Your task to perform on an android device: toggle notifications settings in the gmail app Image 0: 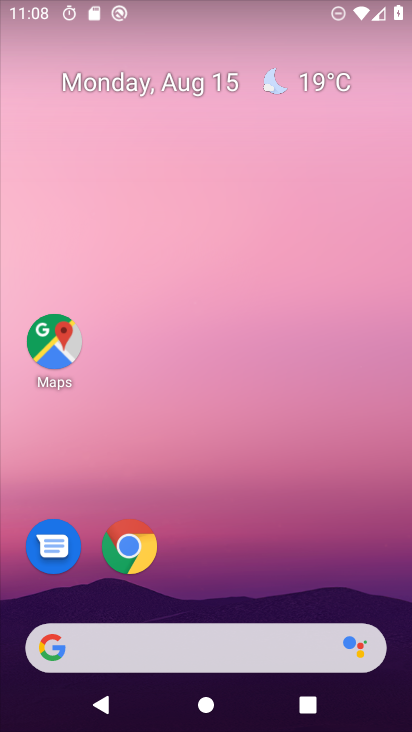
Step 0: drag from (223, 608) to (188, 146)
Your task to perform on an android device: toggle notifications settings in the gmail app Image 1: 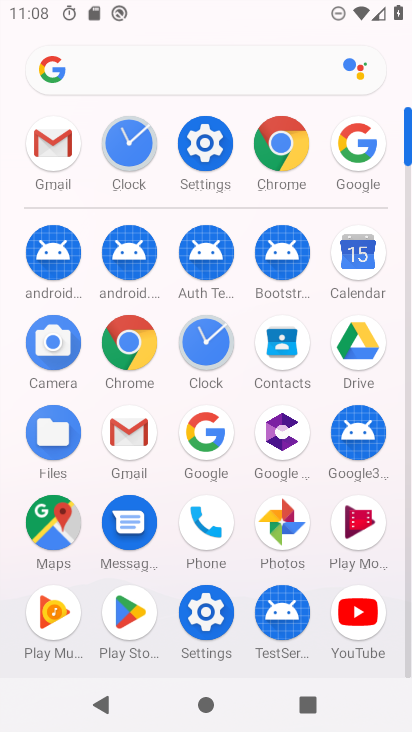
Step 1: click (138, 431)
Your task to perform on an android device: toggle notifications settings in the gmail app Image 2: 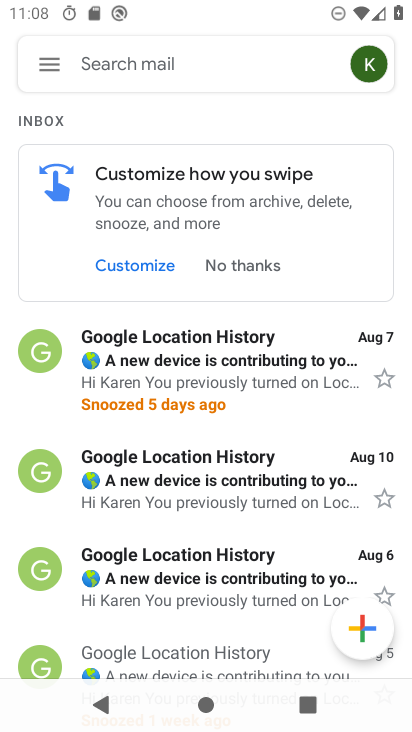
Step 2: drag from (201, 626) to (204, 396)
Your task to perform on an android device: toggle notifications settings in the gmail app Image 3: 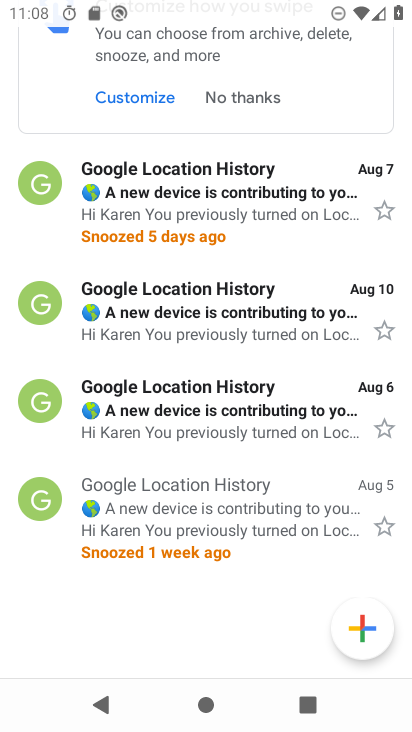
Step 3: drag from (106, 124) to (155, 481)
Your task to perform on an android device: toggle notifications settings in the gmail app Image 4: 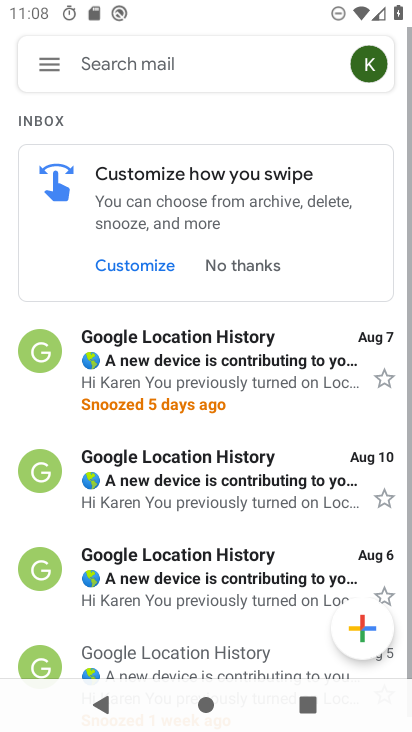
Step 4: click (45, 59)
Your task to perform on an android device: toggle notifications settings in the gmail app Image 5: 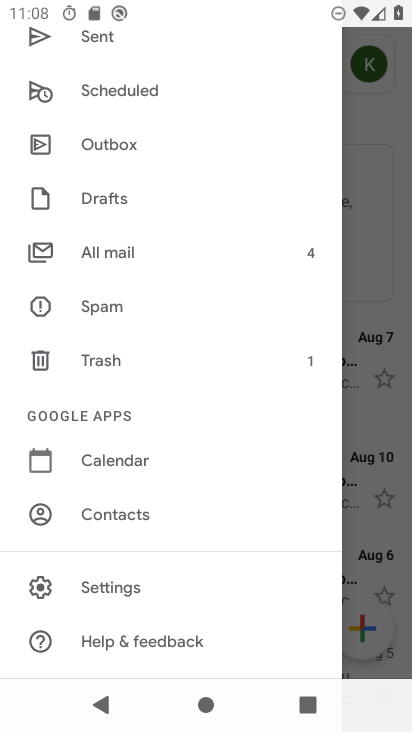
Step 5: click (111, 585)
Your task to perform on an android device: toggle notifications settings in the gmail app Image 6: 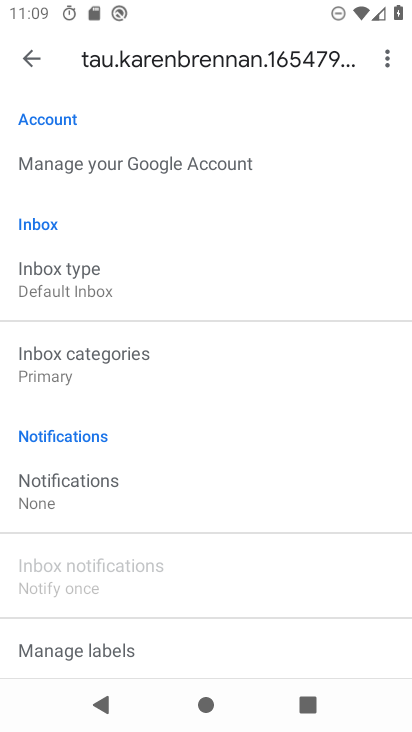
Step 6: click (73, 475)
Your task to perform on an android device: toggle notifications settings in the gmail app Image 7: 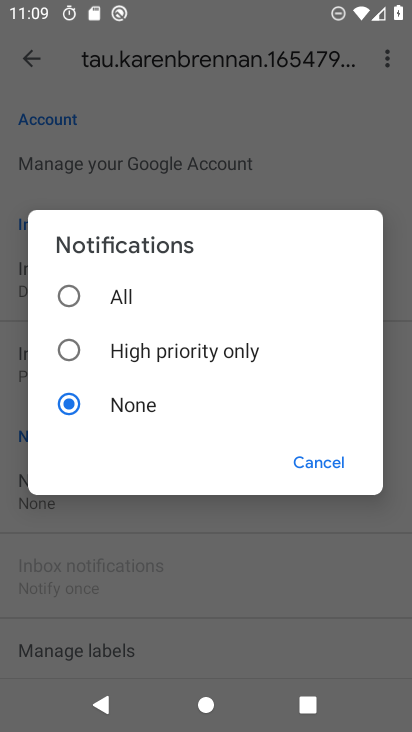
Step 7: click (72, 348)
Your task to perform on an android device: toggle notifications settings in the gmail app Image 8: 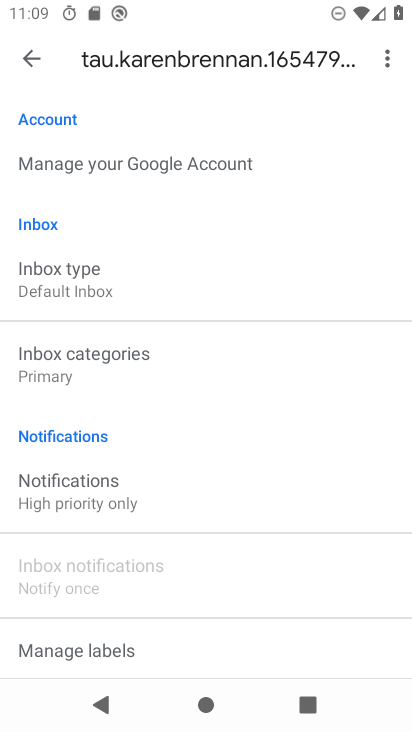
Step 8: task complete